Your task to perform on an android device: Go to notification settings Image 0: 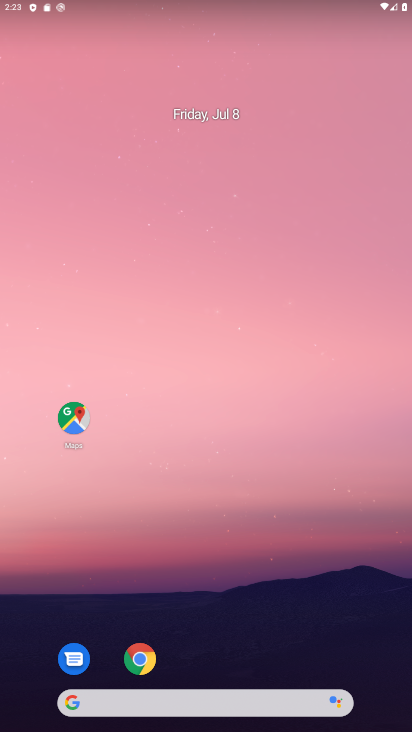
Step 0: drag from (244, 635) to (249, 177)
Your task to perform on an android device: Go to notification settings Image 1: 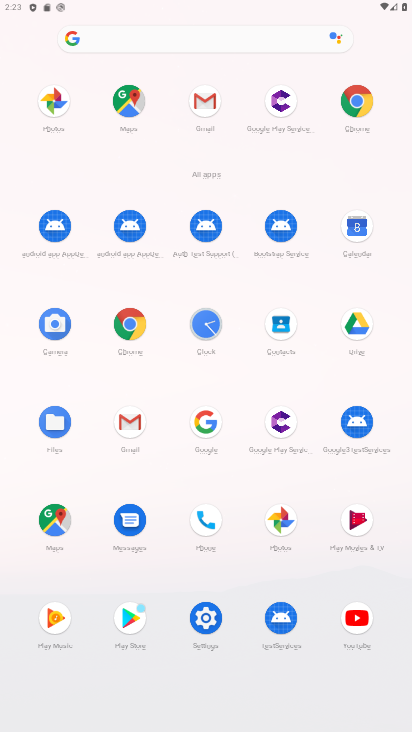
Step 1: click (198, 614)
Your task to perform on an android device: Go to notification settings Image 2: 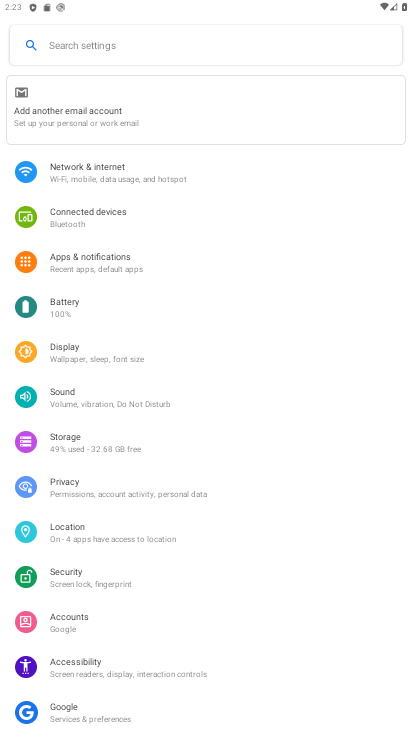
Step 2: click (92, 261)
Your task to perform on an android device: Go to notification settings Image 3: 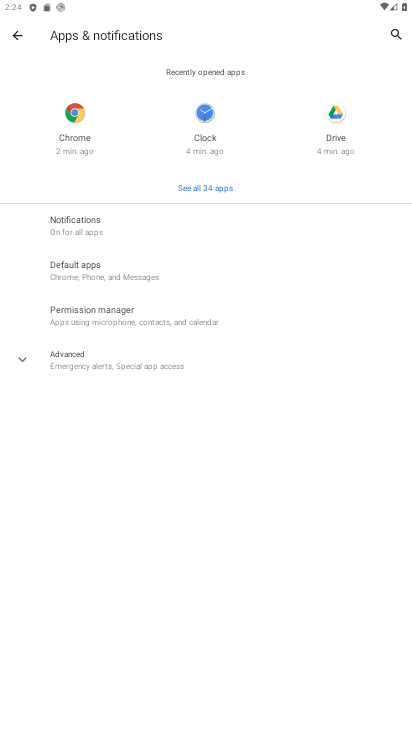
Step 3: click (90, 220)
Your task to perform on an android device: Go to notification settings Image 4: 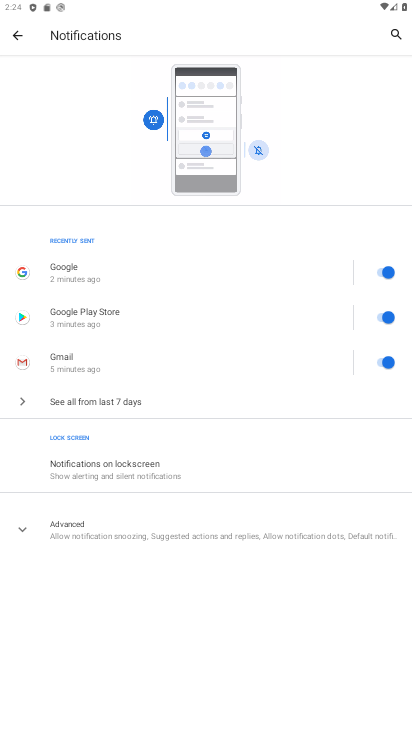
Step 4: click (26, 524)
Your task to perform on an android device: Go to notification settings Image 5: 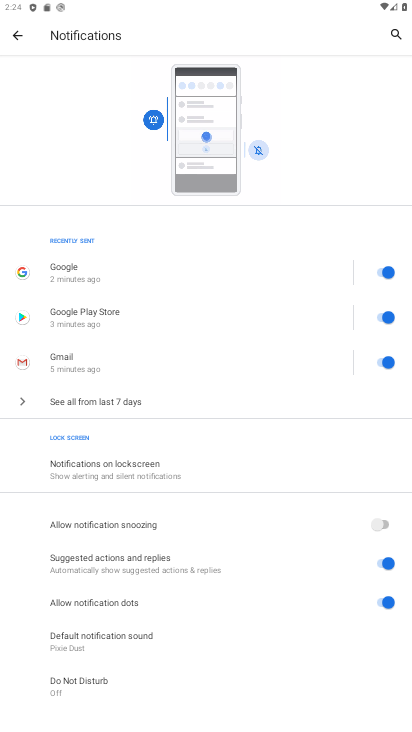
Step 5: task complete